Your task to perform on an android device: Clear the shopping cart on amazon. Add "apple airpods" to the cart on amazon Image 0: 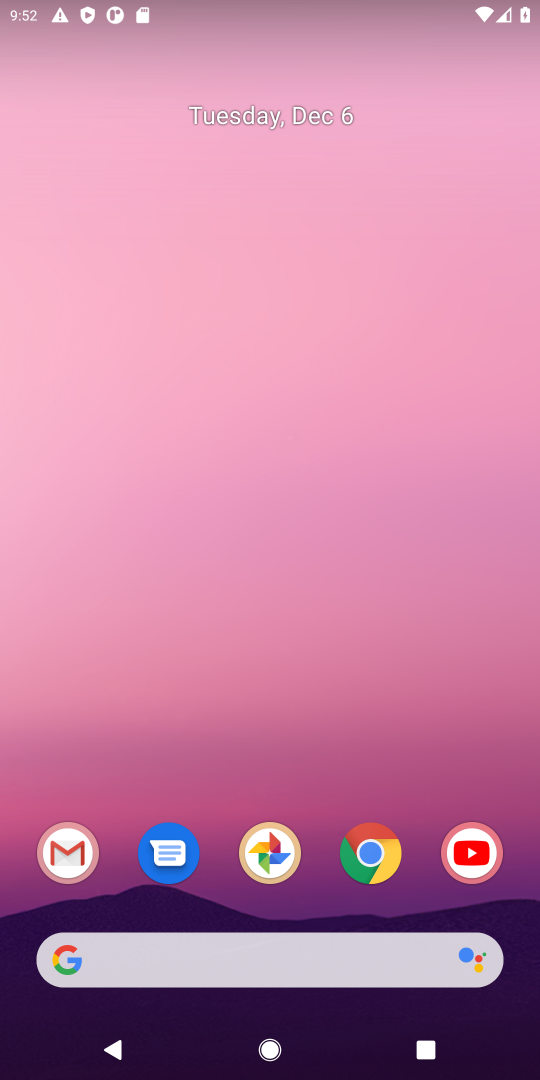
Step 0: click (372, 868)
Your task to perform on an android device: Clear the shopping cart on amazon. Add "apple airpods" to the cart on amazon Image 1: 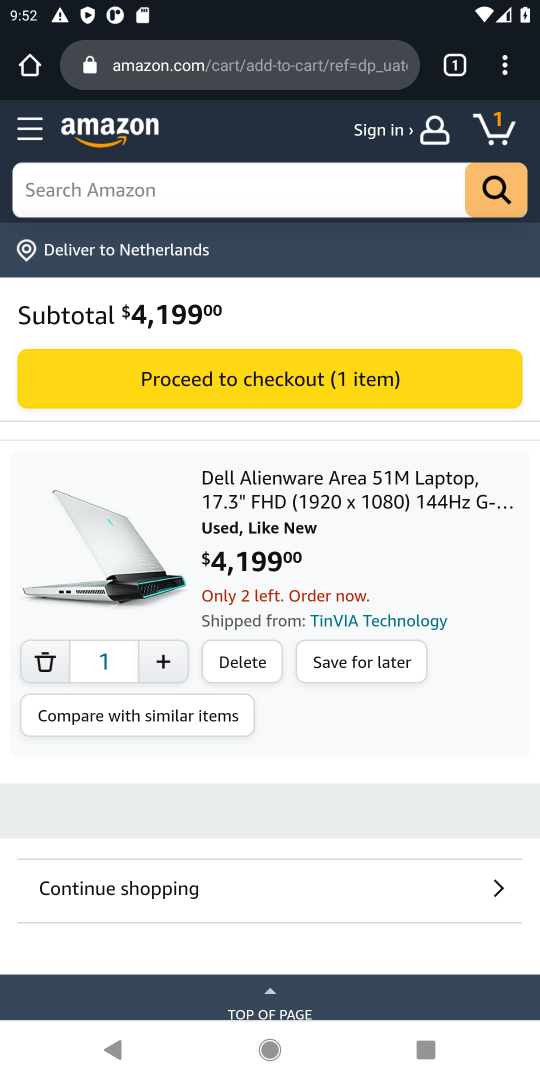
Step 1: click (493, 135)
Your task to perform on an android device: Clear the shopping cart on amazon. Add "apple airpods" to the cart on amazon Image 2: 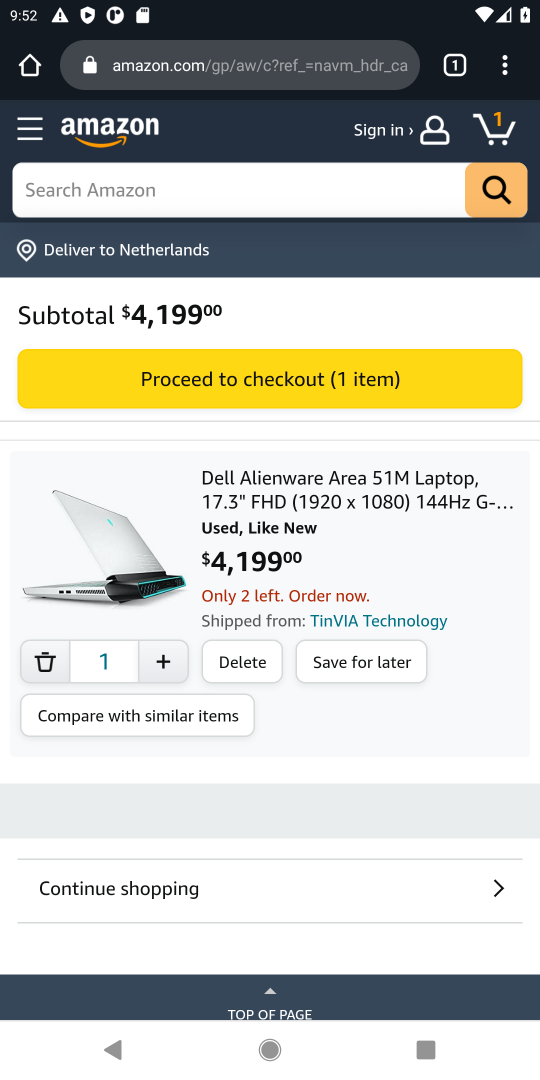
Step 2: click (497, 126)
Your task to perform on an android device: Clear the shopping cart on amazon. Add "apple airpods" to the cart on amazon Image 3: 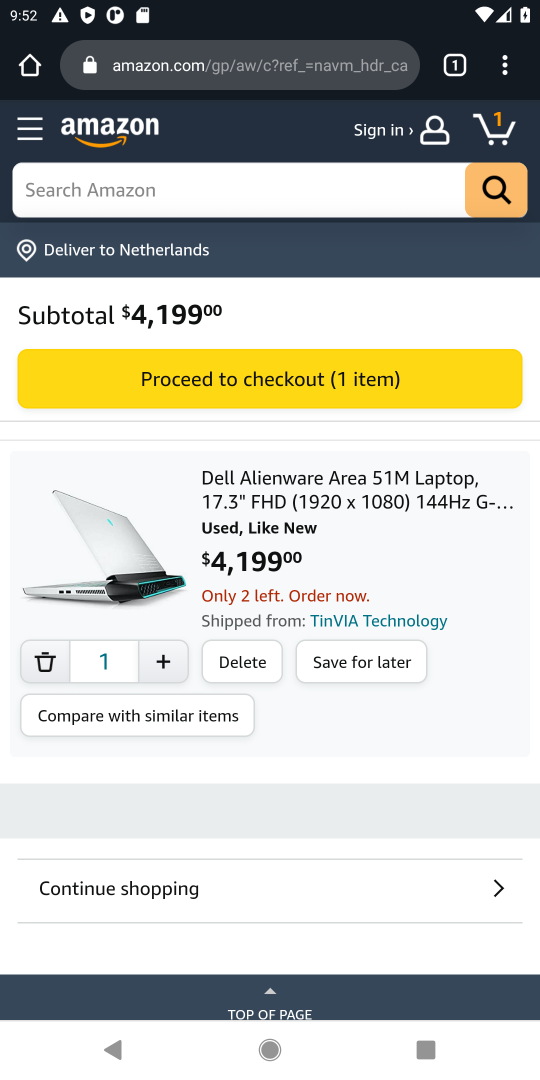
Step 3: click (243, 661)
Your task to perform on an android device: Clear the shopping cart on amazon. Add "apple airpods" to the cart on amazon Image 4: 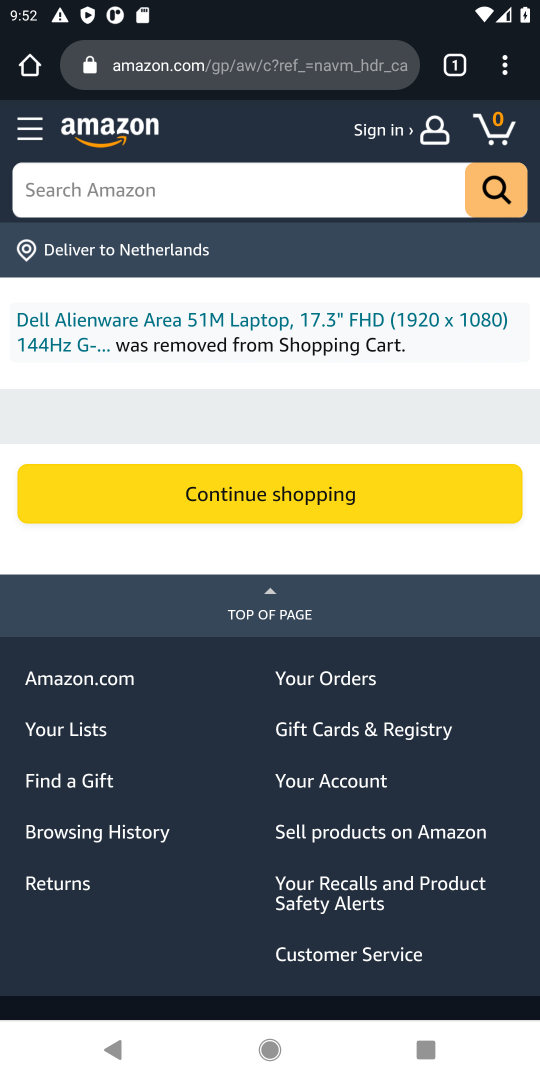
Step 4: click (266, 193)
Your task to perform on an android device: Clear the shopping cart on amazon. Add "apple airpods" to the cart on amazon Image 5: 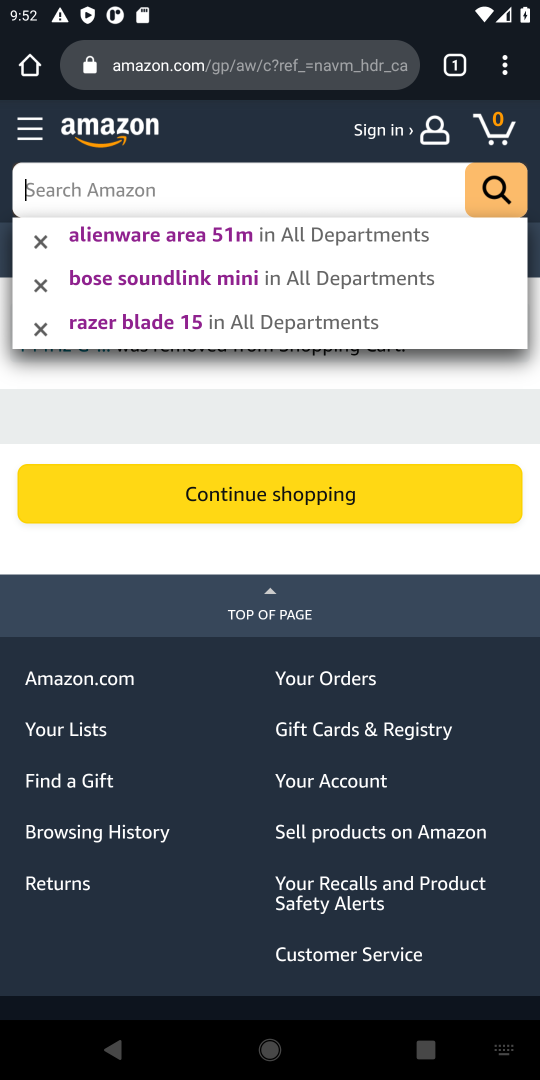
Step 5: type "apple airpods"
Your task to perform on an android device: Clear the shopping cart on amazon. Add "apple airpods" to the cart on amazon Image 6: 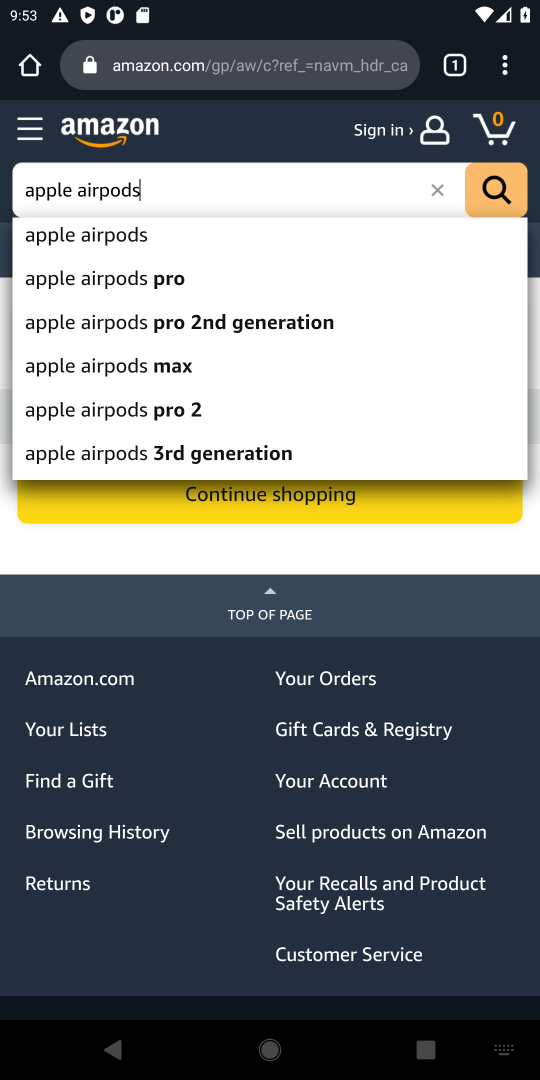
Step 6: click (119, 242)
Your task to perform on an android device: Clear the shopping cart on amazon. Add "apple airpods" to the cart on amazon Image 7: 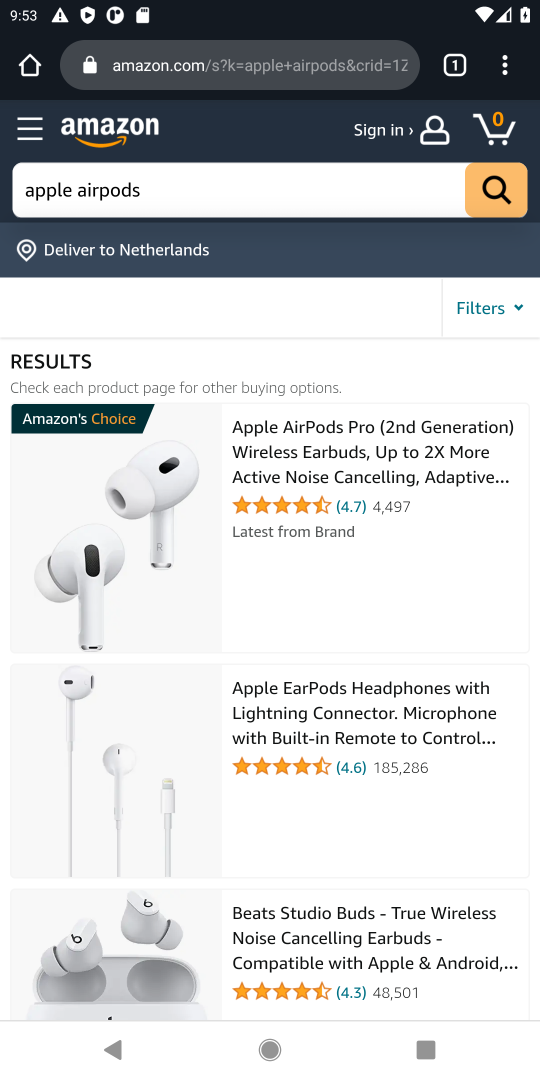
Step 7: click (163, 525)
Your task to perform on an android device: Clear the shopping cart on amazon. Add "apple airpods" to the cart on amazon Image 8: 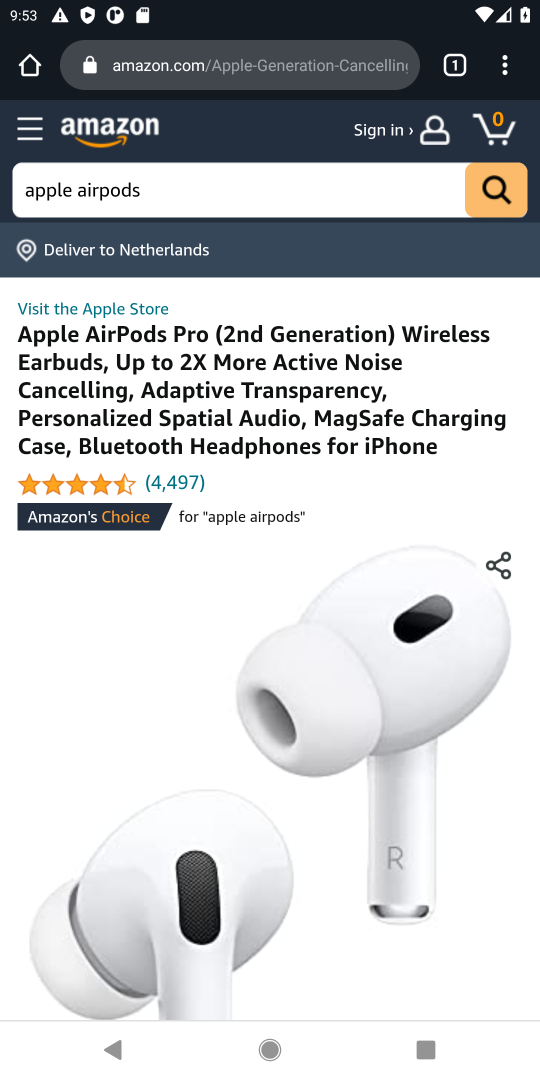
Step 8: task complete